Your task to perform on an android device: visit the assistant section in the google photos Image 0: 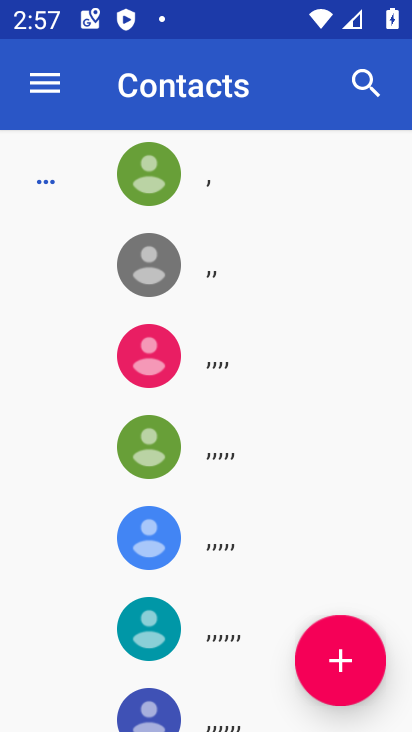
Step 0: press home button
Your task to perform on an android device: visit the assistant section in the google photos Image 1: 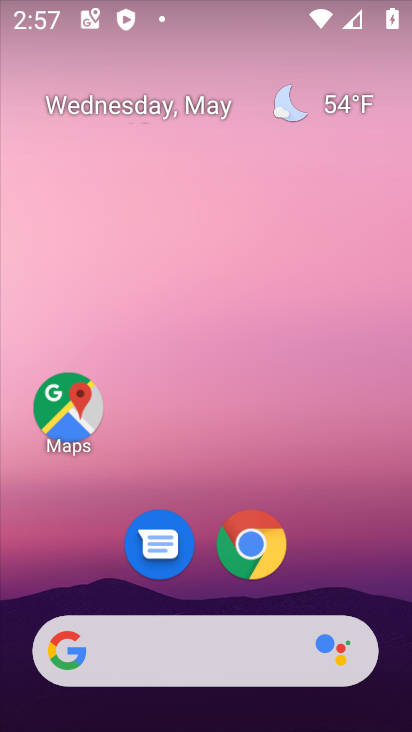
Step 1: drag from (318, 570) to (342, 111)
Your task to perform on an android device: visit the assistant section in the google photos Image 2: 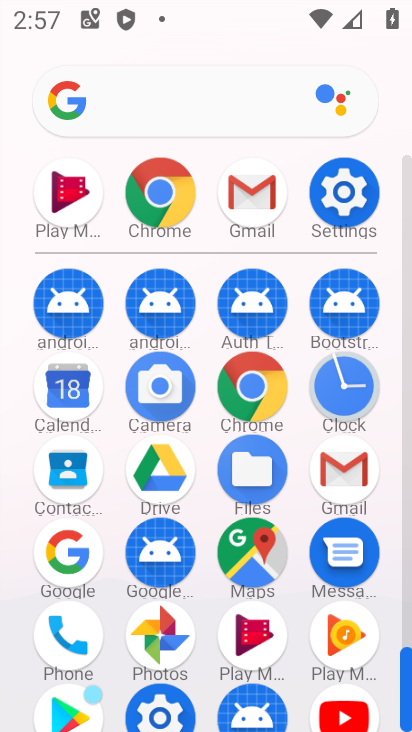
Step 2: click (158, 652)
Your task to perform on an android device: visit the assistant section in the google photos Image 3: 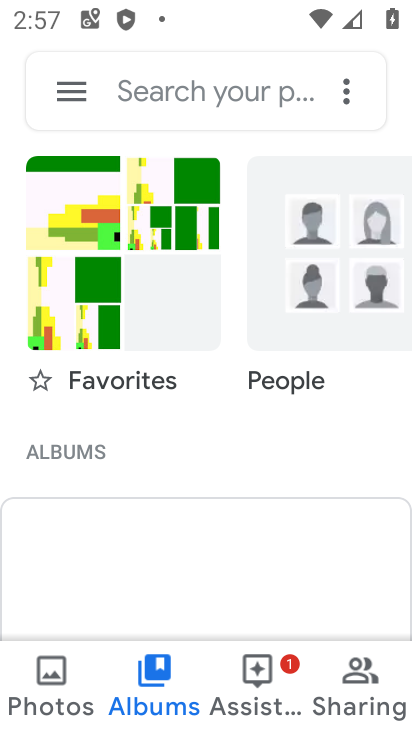
Step 3: click (243, 692)
Your task to perform on an android device: visit the assistant section in the google photos Image 4: 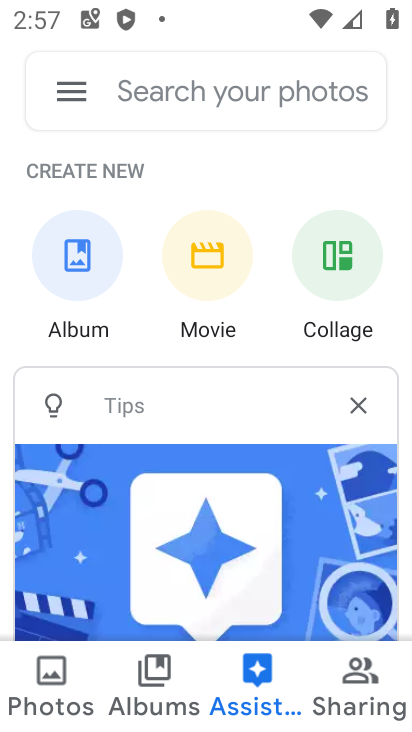
Step 4: task complete